Your task to perform on an android device: check storage Image 0: 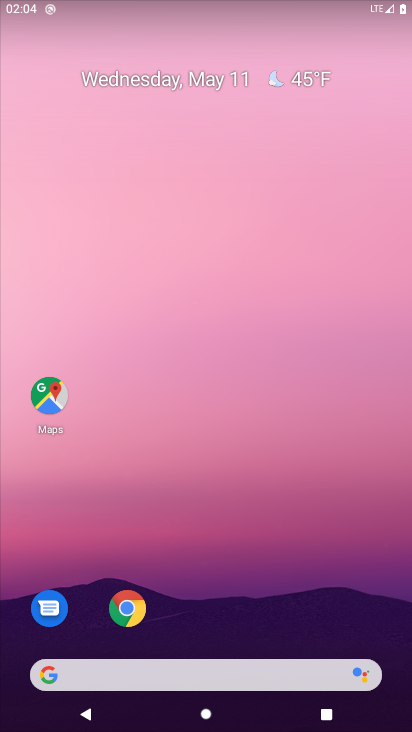
Step 0: drag from (214, 638) to (198, 105)
Your task to perform on an android device: check storage Image 1: 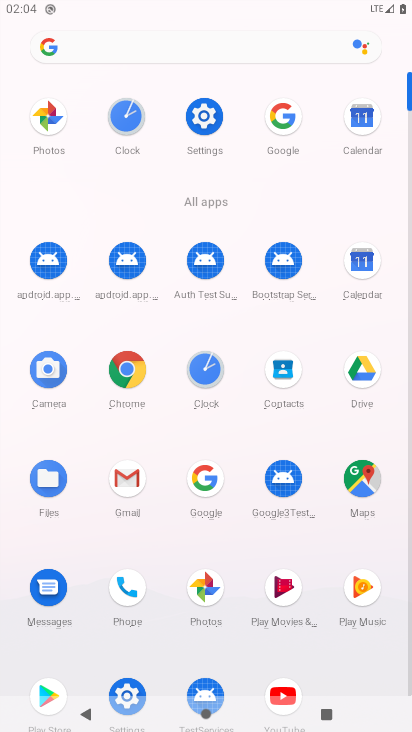
Step 1: click (201, 112)
Your task to perform on an android device: check storage Image 2: 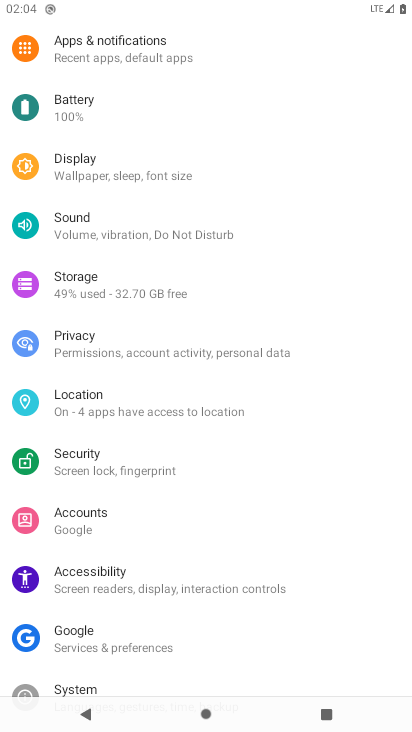
Step 2: click (108, 276)
Your task to perform on an android device: check storage Image 3: 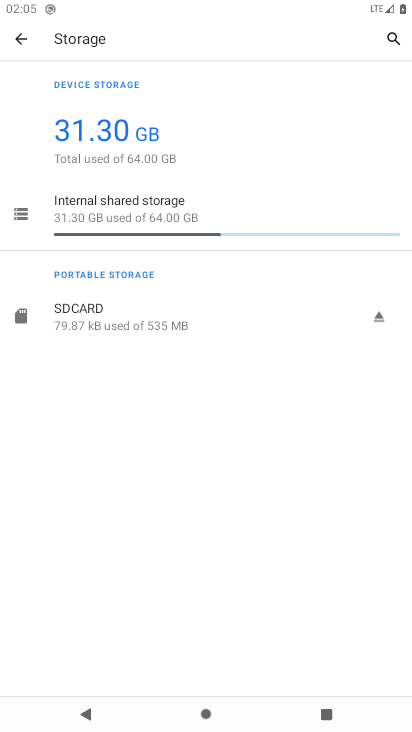
Step 3: task complete